Your task to perform on an android device: What is the news today? Image 0: 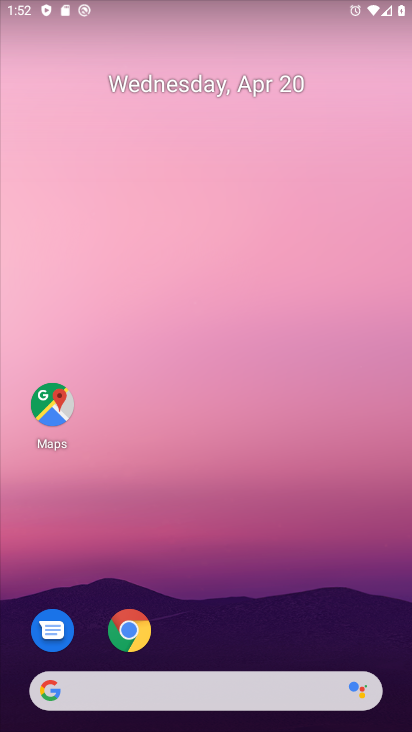
Step 0: click (138, 631)
Your task to perform on an android device: What is the news today? Image 1: 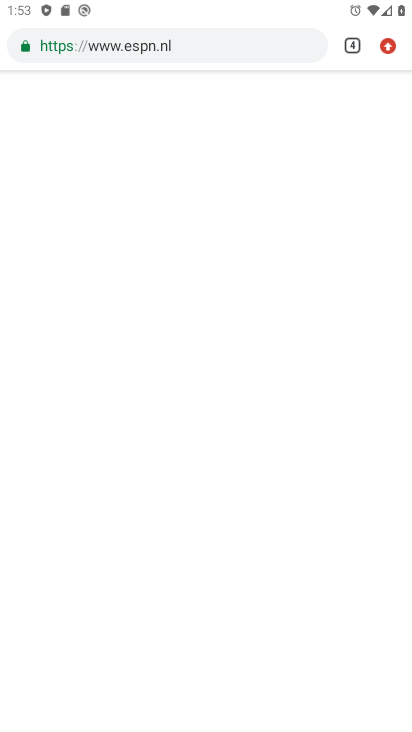
Step 1: click (351, 48)
Your task to perform on an android device: What is the news today? Image 2: 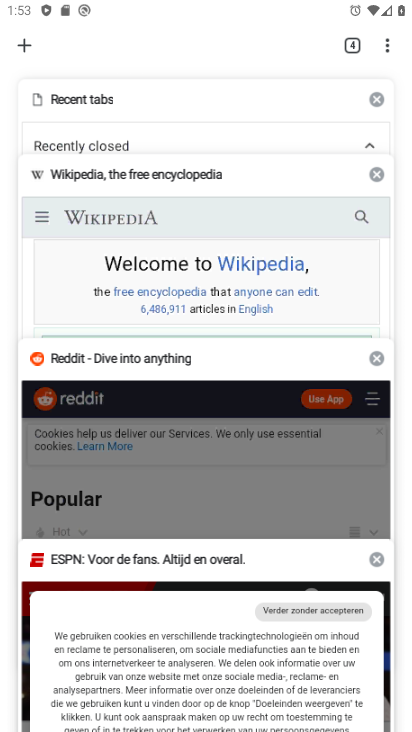
Step 2: click (25, 43)
Your task to perform on an android device: What is the news today? Image 3: 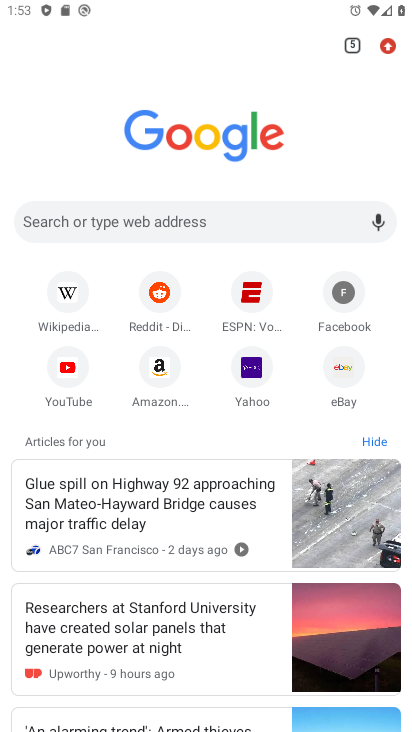
Step 3: click (137, 221)
Your task to perform on an android device: What is the news today? Image 4: 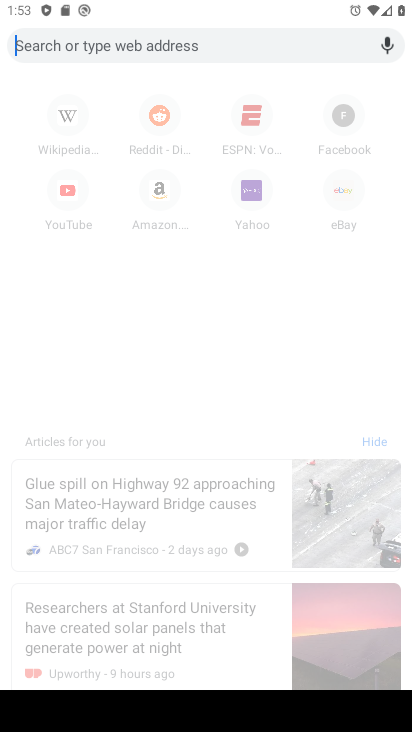
Step 4: type "news today"
Your task to perform on an android device: What is the news today? Image 5: 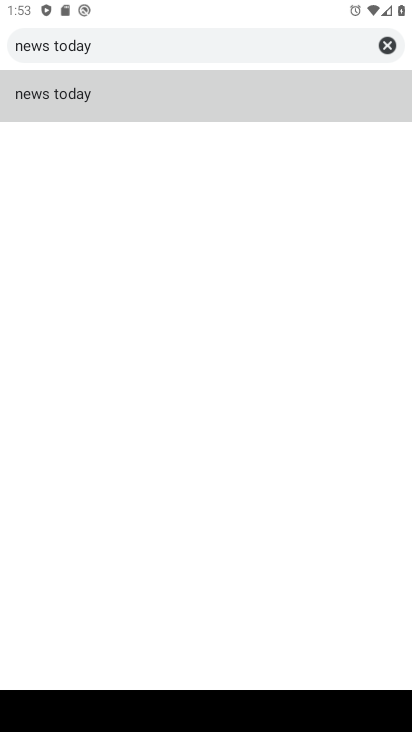
Step 5: click (33, 104)
Your task to perform on an android device: What is the news today? Image 6: 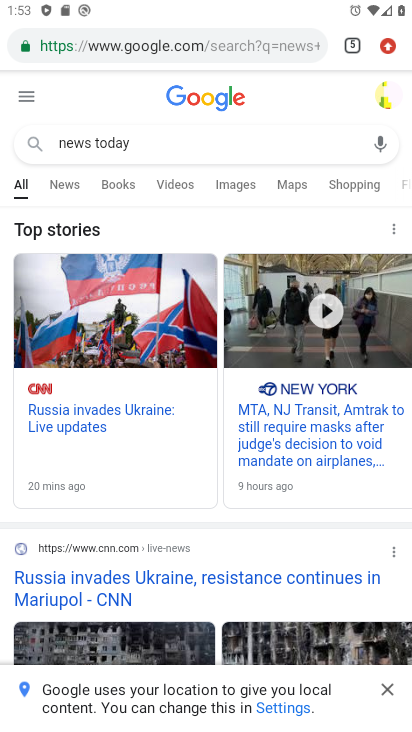
Step 6: drag from (104, 624) to (119, 295)
Your task to perform on an android device: What is the news today? Image 7: 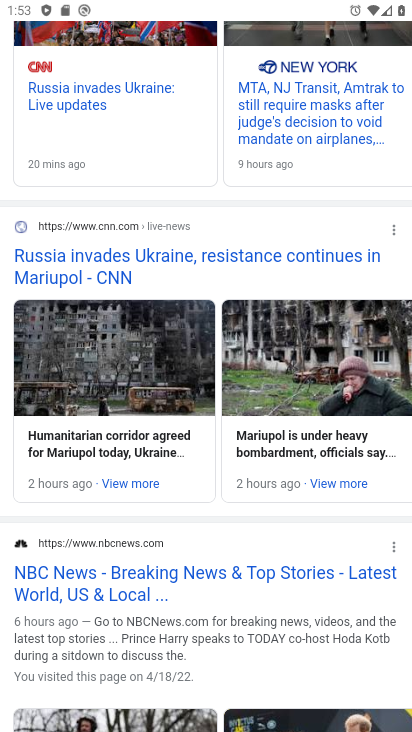
Step 7: drag from (164, 172) to (200, 525)
Your task to perform on an android device: What is the news today? Image 8: 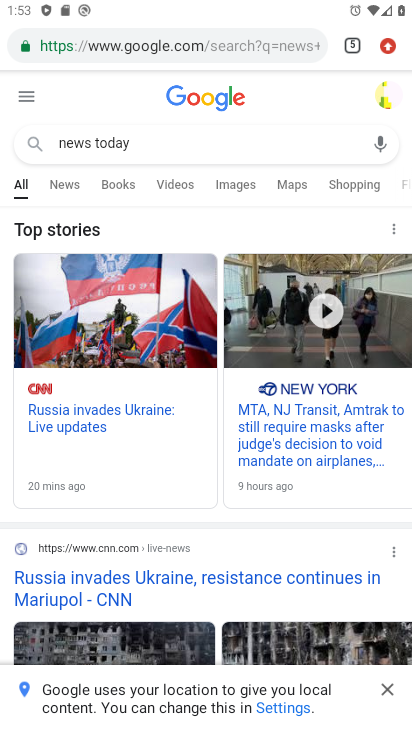
Step 8: click (61, 179)
Your task to perform on an android device: What is the news today? Image 9: 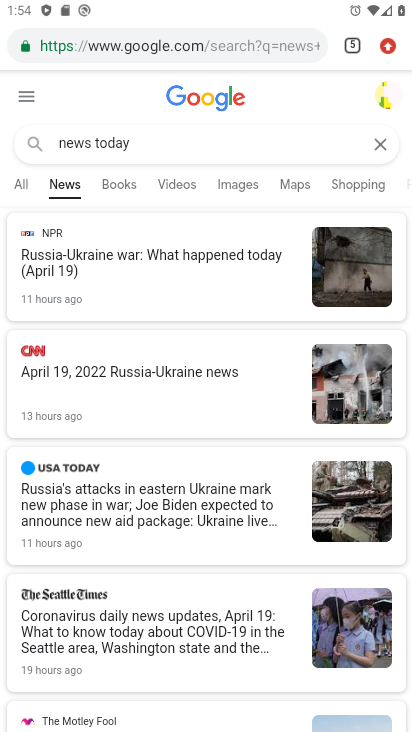
Step 9: task complete